Your task to perform on an android device: Go to accessibility settings Image 0: 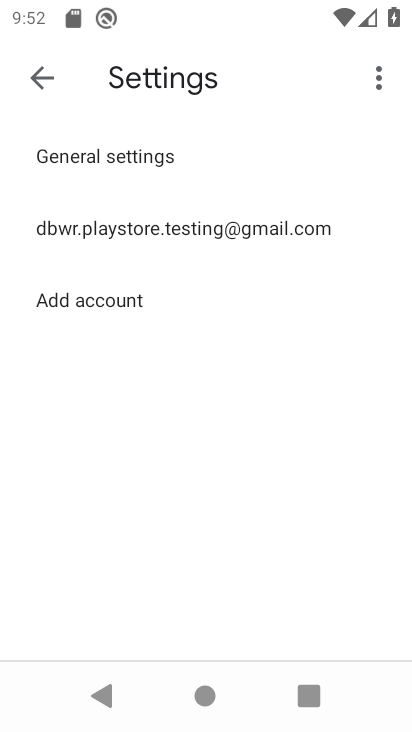
Step 0: press back button
Your task to perform on an android device: Go to accessibility settings Image 1: 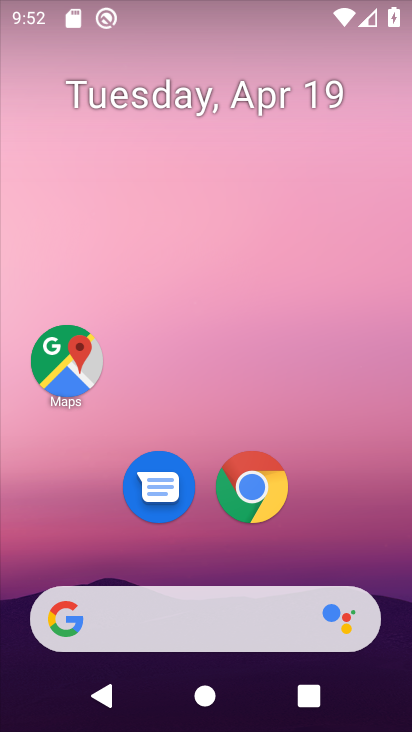
Step 1: drag from (344, 526) to (304, 10)
Your task to perform on an android device: Go to accessibility settings Image 2: 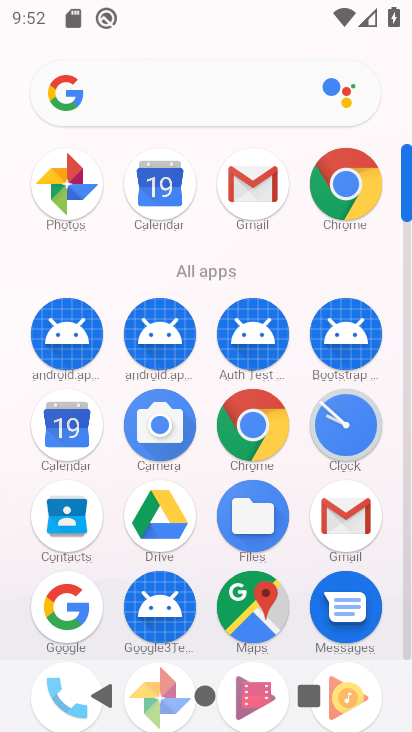
Step 2: drag from (13, 366) to (16, 216)
Your task to perform on an android device: Go to accessibility settings Image 3: 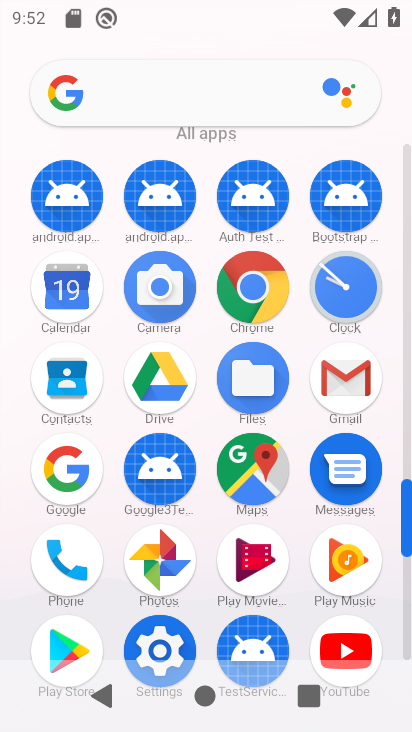
Step 3: click (158, 650)
Your task to perform on an android device: Go to accessibility settings Image 4: 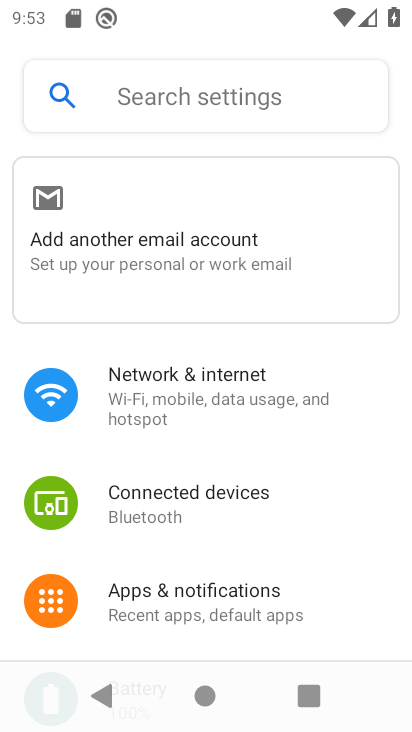
Step 4: drag from (336, 420) to (345, 128)
Your task to perform on an android device: Go to accessibility settings Image 5: 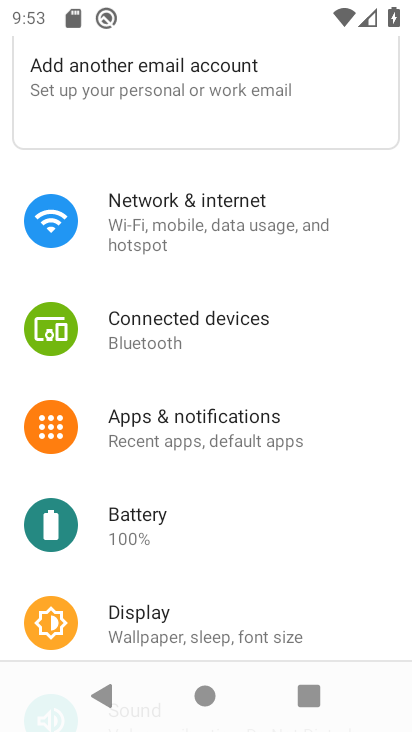
Step 5: drag from (321, 427) to (325, 149)
Your task to perform on an android device: Go to accessibility settings Image 6: 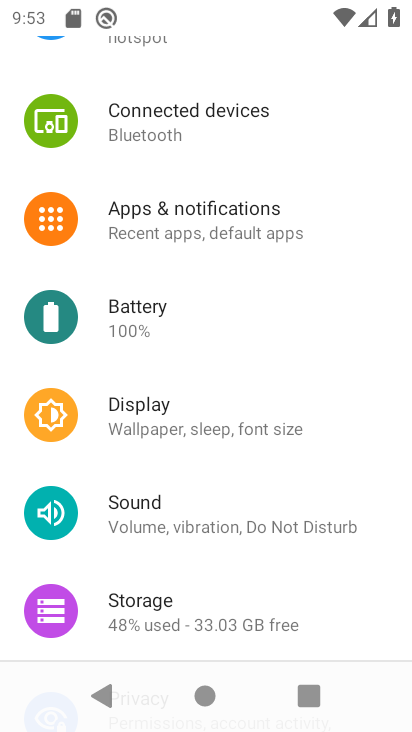
Step 6: drag from (325, 149) to (329, 392)
Your task to perform on an android device: Go to accessibility settings Image 7: 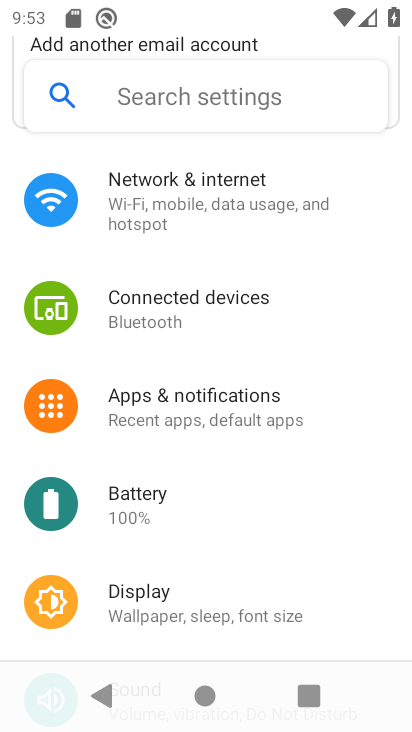
Step 7: drag from (373, 192) to (357, 474)
Your task to perform on an android device: Go to accessibility settings Image 8: 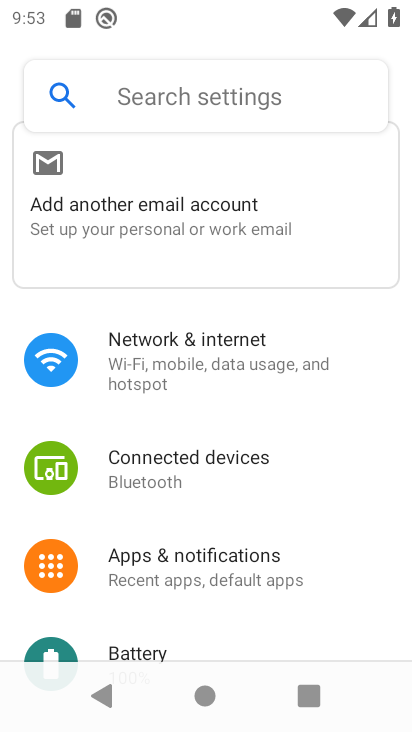
Step 8: drag from (322, 488) to (348, 130)
Your task to perform on an android device: Go to accessibility settings Image 9: 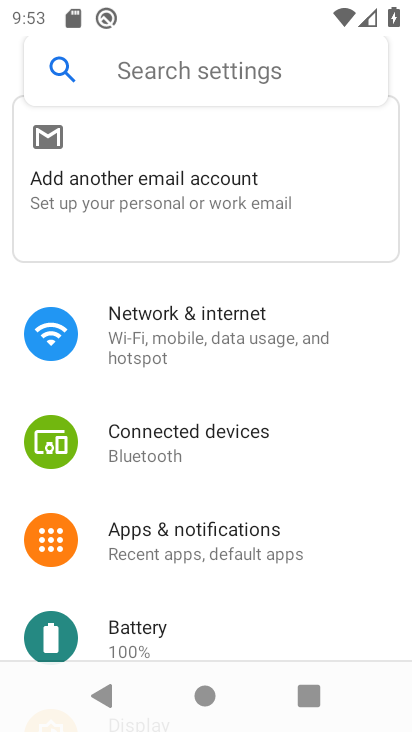
Step 9: drag from (306, 525) to (328, 68)
Your task to perform on an android device: Go to accessibility settings Image 10: 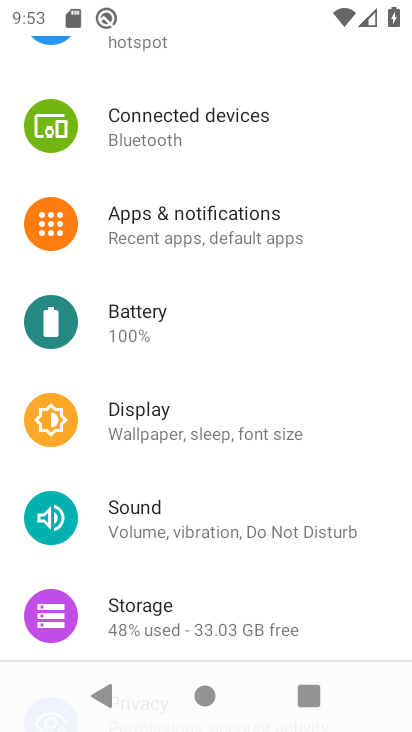
Step 10: drag from (315, 573) to (338, 136)
Your task to perform on an android device: Go to accessibility settings Image 11: 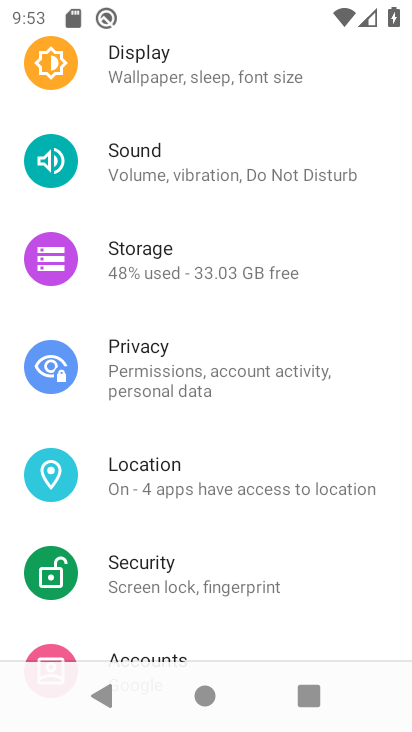
Step 11: drag from (311, 512) to (336, 61)
Your task to perform on an android device: Go to accessibility settings Image 12: 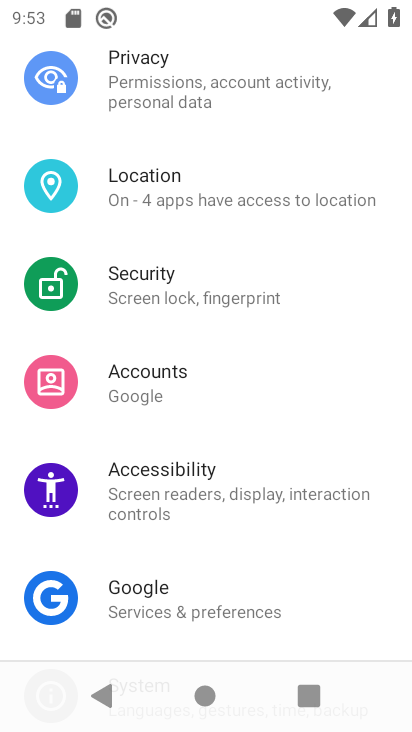
Step 12: drag from (280, 536) to (325, 76)
Your task to perform on an android device: Go to accessibility settings Image 13: 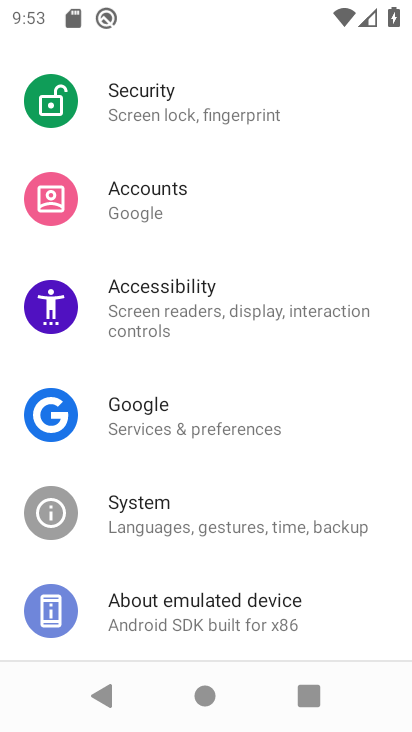
Step 13: drag from (283, 563) to (313, 228)
Your task to perform on an android device: Go to accessibility settings Image 14: 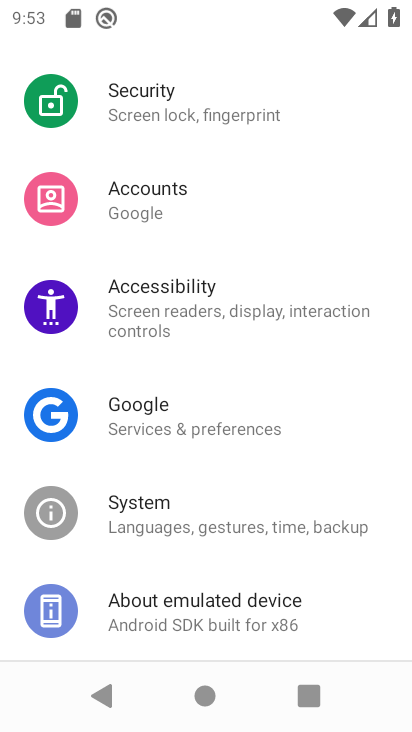
Step 14: click (214, 283)
Your task to perform on an android device: Go to accessibility settings Image 15: 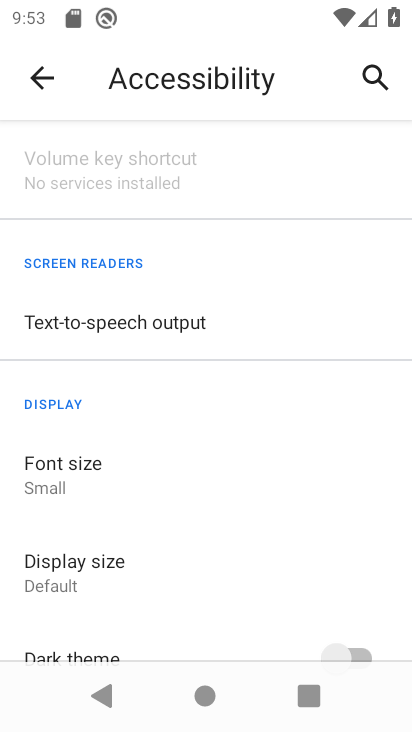
Step 15: task complete